Your task to perform on an android device: set an alarm Image 0: 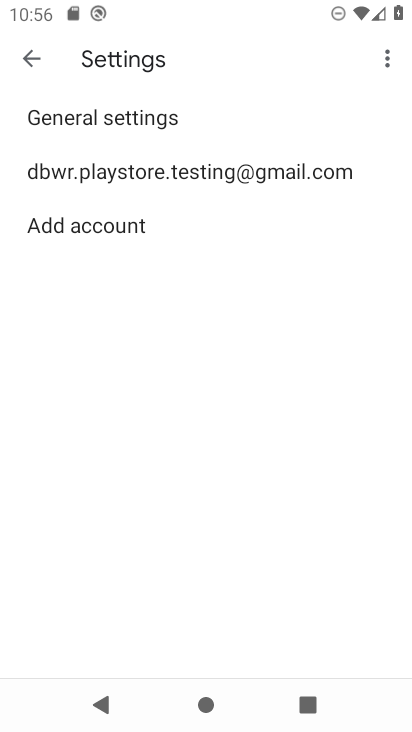
Step 0: press home button
Your task to perform on an android device: set an alarm Image 1: 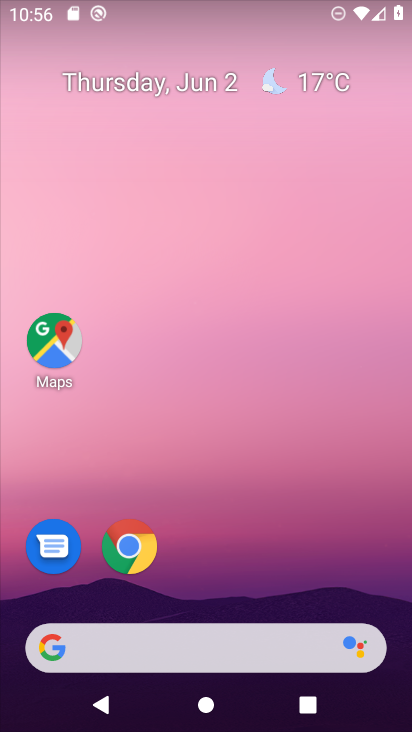
Step 1: drag from (236, 377) to (228, 47)
Your task to perform on an android device: set an alarm Image 2: 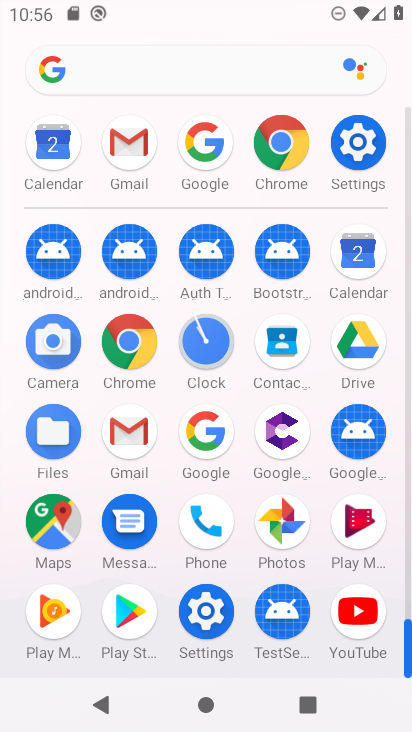
Step 2: click (204, 337)
Your task to perform on an android device: set an alarm Image 3: 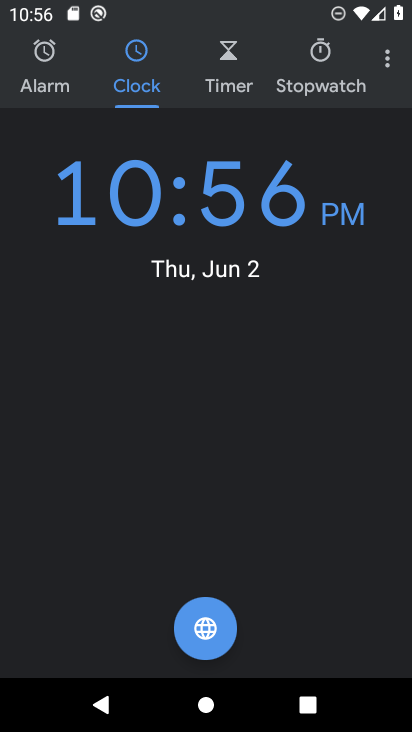
Step 3: click (54, 63)
Your task to perform on an android device: set an alarm Image 4: 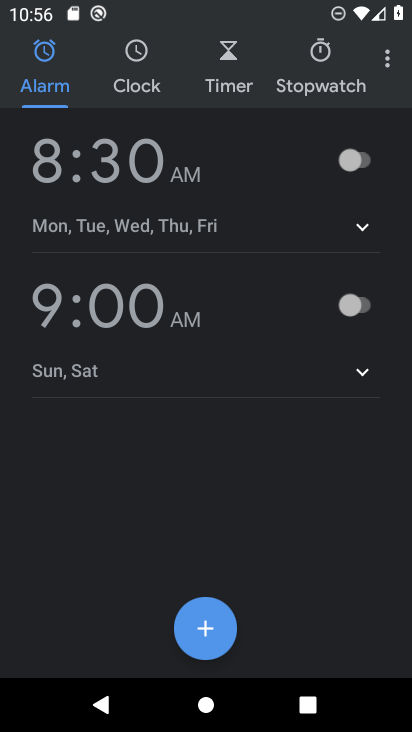
Step 4: click (202, 619)
Your task to perform on an android device: set an alarm Image 5: 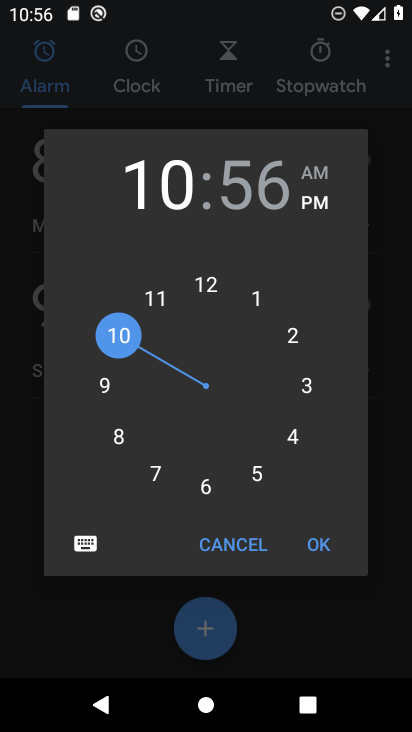
Step 5: click (312, 544)
Your task to perform on an android device: set an alarm Image 6: 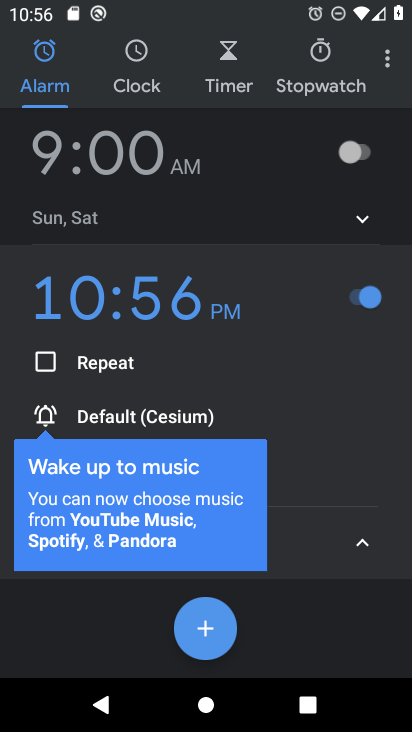
Step 6: task complete